Your task to perform on an android device: open chrome and create a bookmark for the current page Image 0: 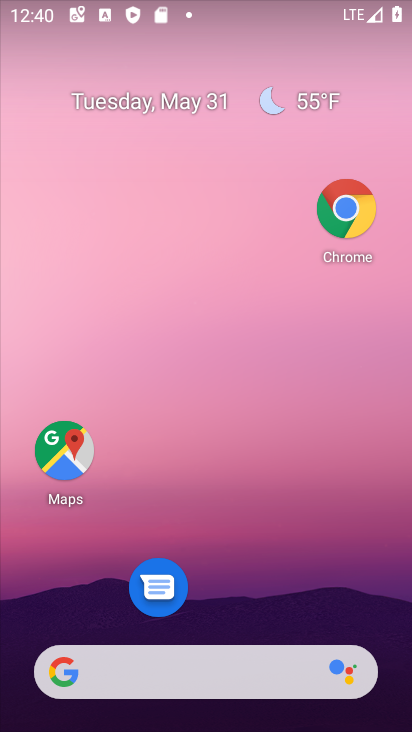
Step 0: click (336, 205)
Your task to perform on an android device: open chrome and create a bookmark for the current page Image 1: 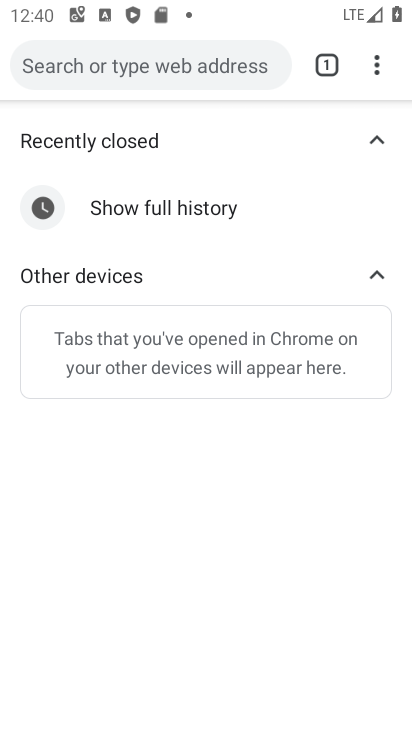
Step 1: click (381, 68)
Your task to perform on an android device: open chrome and create a bookmark for the current page Image 2: 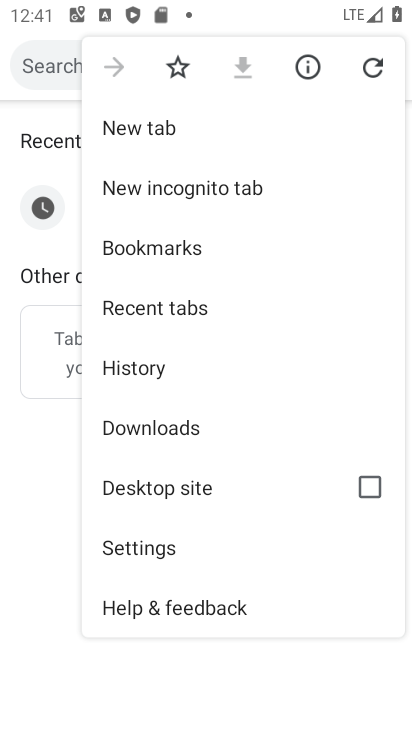
Step 2: click (177, 72)
Your task to perform on an android device: open chrome and create a bookmark for the current page Image 3: 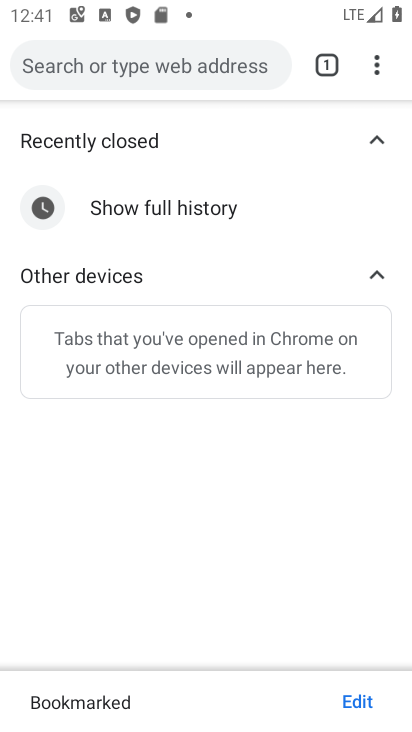
Step 3: task complete